Your task to perform on an android device: turn on bluetooth scan Image 0: 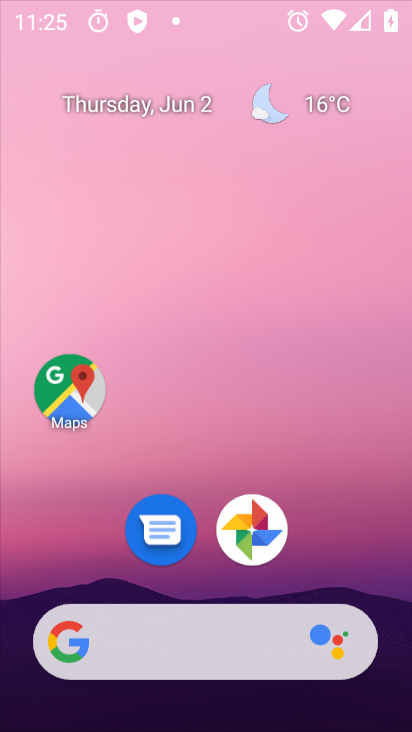
Step 0: drag from (215, 253) to (195, 66)
Your task to perform on an android device: turn on bluetooth scan Image 1: 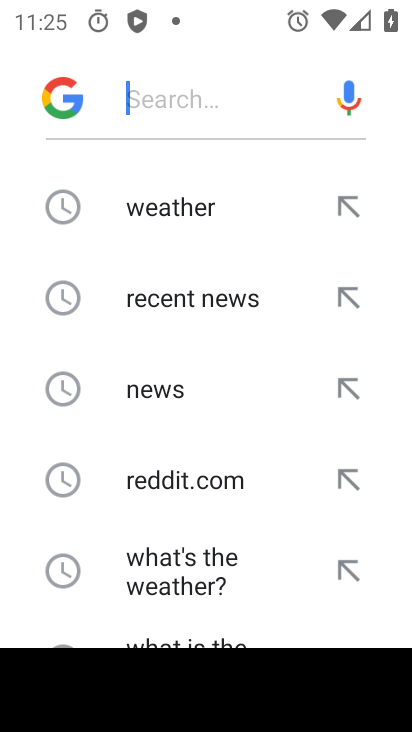
Step 1: press home button
Your task to perform on an android device: turn on bluetooth scan Image 2: 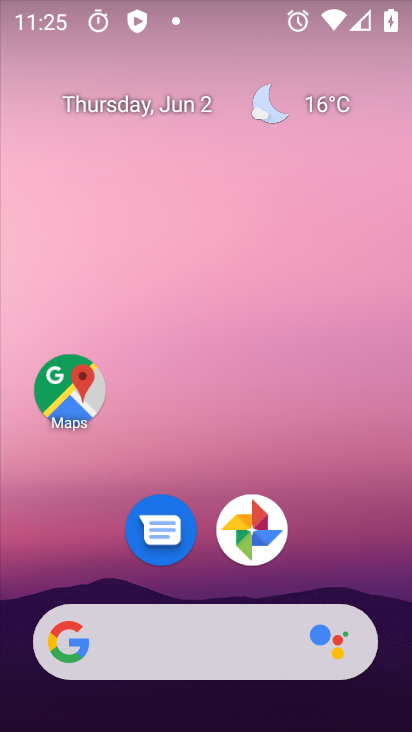
Step 2: drag from (256, 644) to (235, 37)
Your task to perform on an android device: turn on bluetooth scan Image 3: 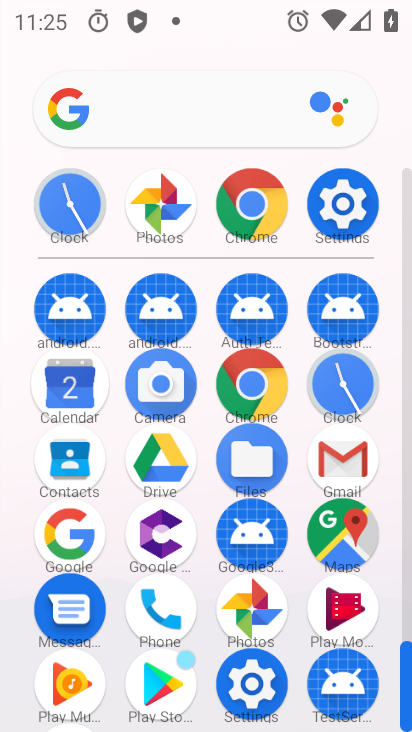
Step 3: click (337, 186)
Your task to perform on an android device: turn on bluetooth scan Image 4: 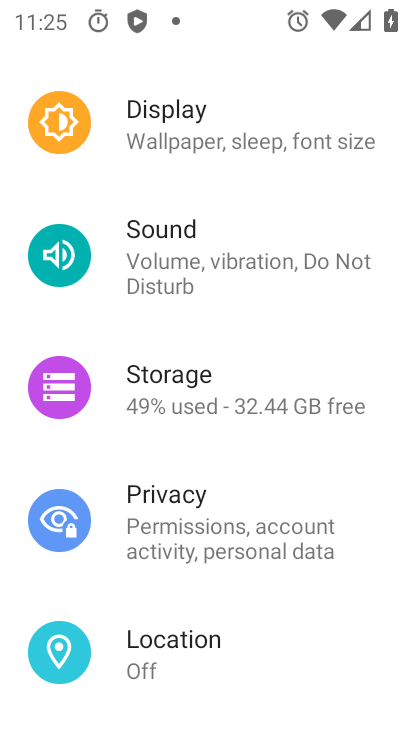
Step 4: drag from (207, 185) to (250, 464)
Your task to perform on an android device: turn on bluetooth scan Image 5: 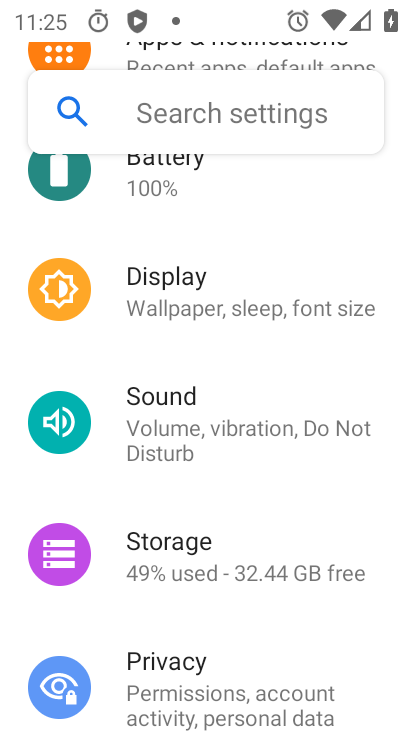
Step 5: drag from (188, 218) to (229, 557)
Your task to perform on an android device: turn on bluetooth scan Image 6: 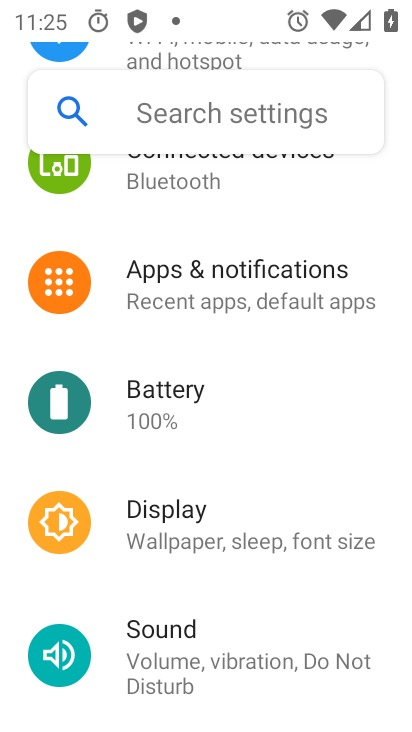
Step 6: drag from (160, 291) to (207, 467)
Your task to perform on an android device: turn on bluetooth scan Image 7: 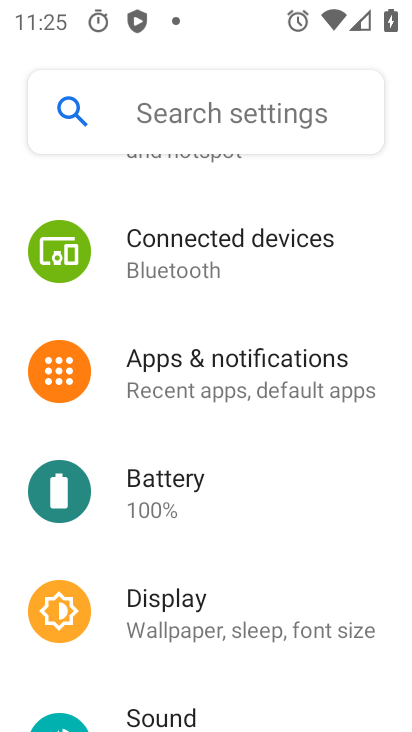
Step 7: drag from (205, 517) to (203, 189)
Your task to perform on an android device: turn on bluetooth scan Image 8: 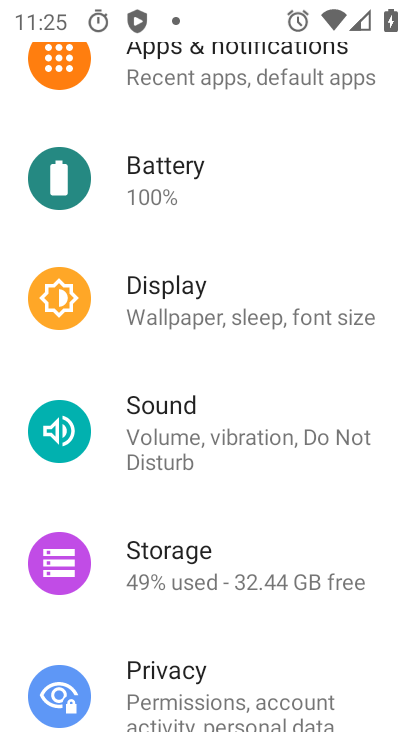
Step 8: drag from (193, 517) to (193, 174)
Your task to perform on an android device: turn on bluetooth scan Image 9: 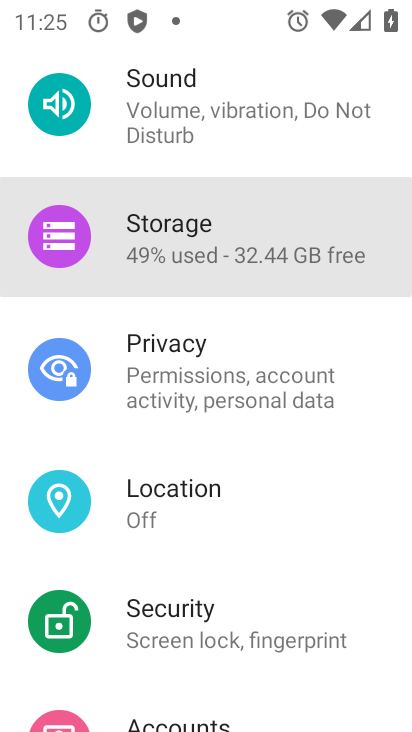
Step 9: drag from (194, 494) to (194, 220)
Your task to perform on an android device: turn on bluetooth scan Image 10: 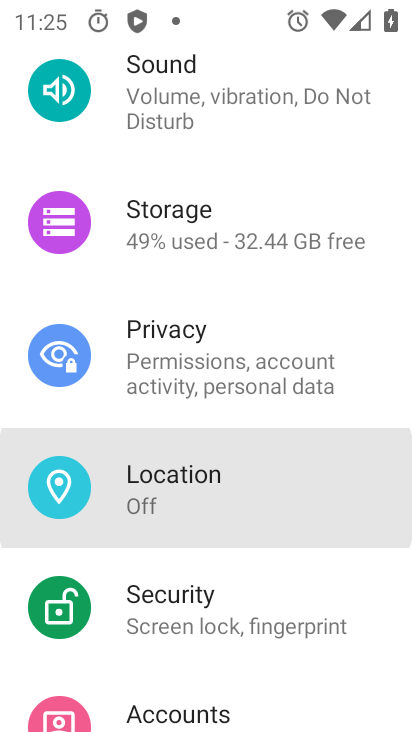
Step 10: drag from (188, 360) to (188, 213)
Your task to perform on an android device: turn on bluetooth scan Image 11: 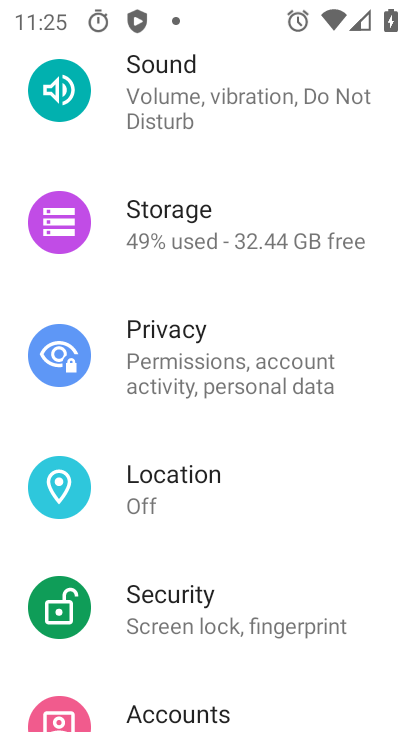
Step 11: drag from (188, 450) to (185, 199)
Your task to perform on an android device: turn on bluetooth scan Image 12: 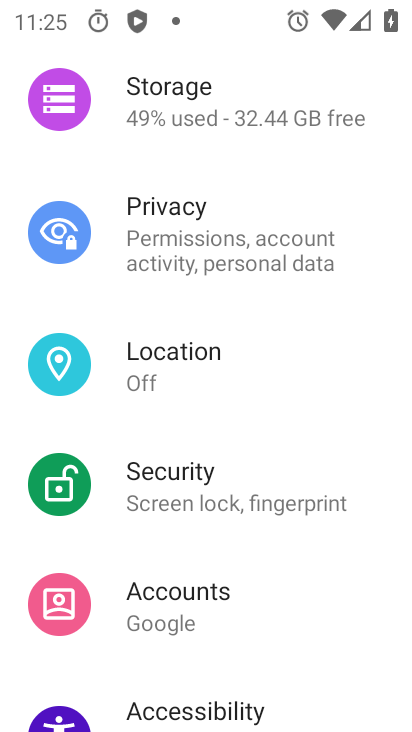
Step 12: click (157, 698)
Your task to perform on an android device: turn on bluetooth scan Image 13: 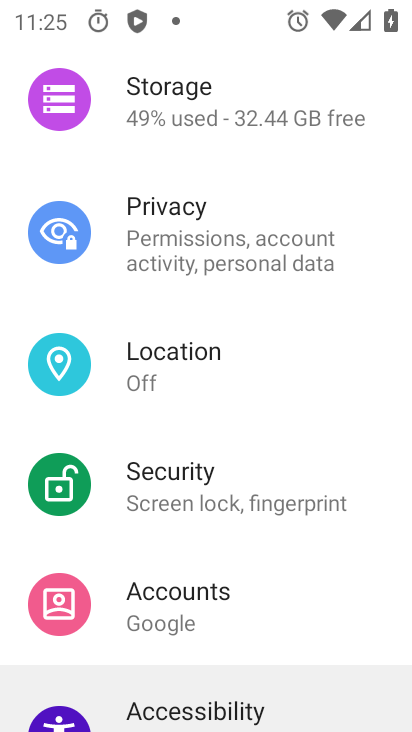
Step 13: click (157, 698)
Your task to perform on an android device: turn on bluetooth scan Image 14: 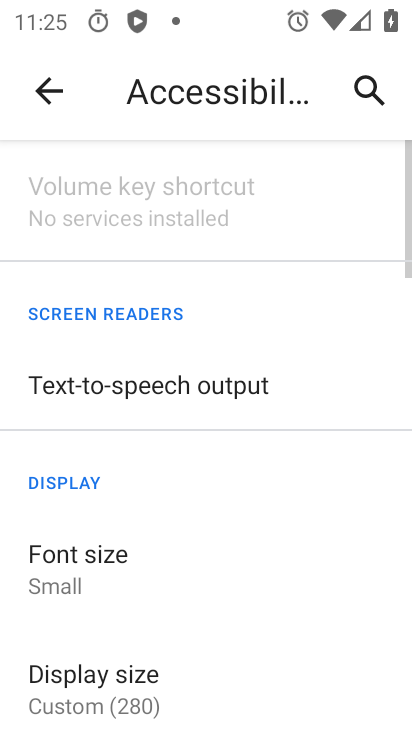
Step 14: click (44, 75)
Your task to perform on an android device: turn on bluetooth scan Image 15: 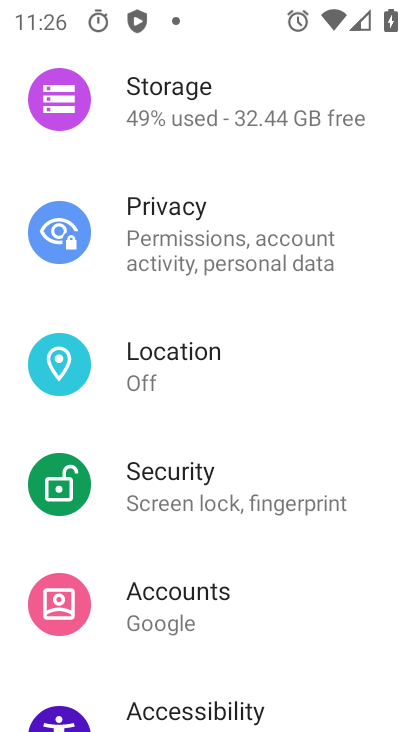
Step 15: click (150, 366)
Your task to perform on an android device: turn on bluetooth scan Image 16: 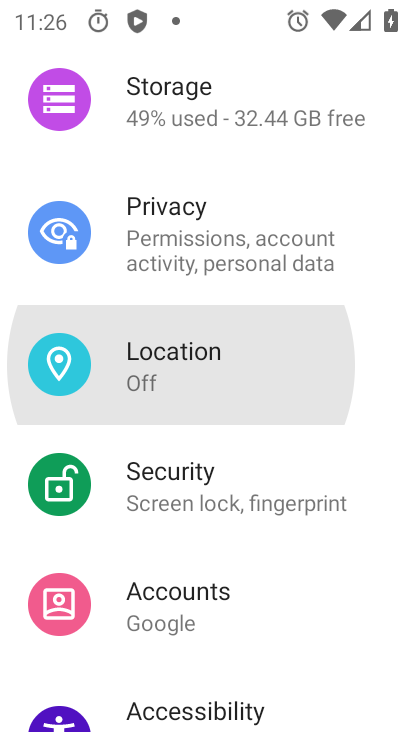
Step 16: click (148, 364)
Your task to perform on an android device: turn on bluetooth scan Image 17: 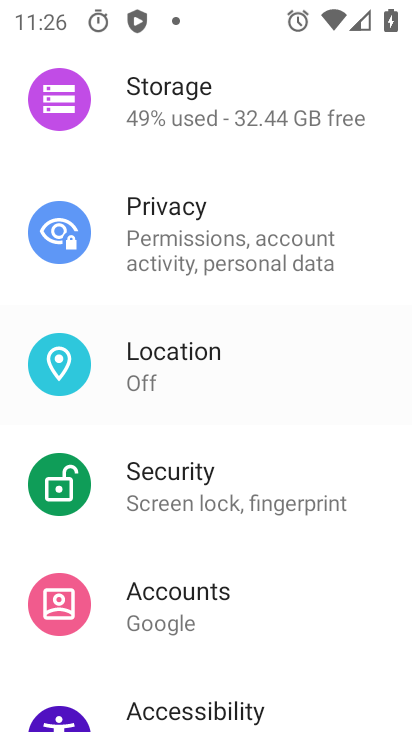
Step 17: click (148, 364)
Your task to perform on an android device: turn on bluetooth scan Image 18: 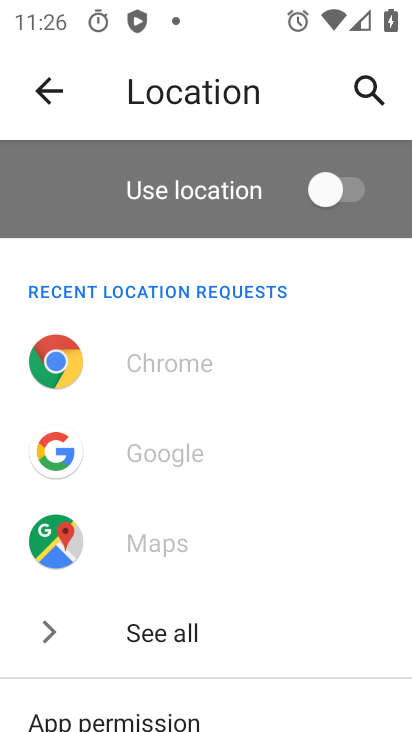
Step 18: click (166, 117)
Your task to perform on an android device: turn on bluetooth scan Image 19: 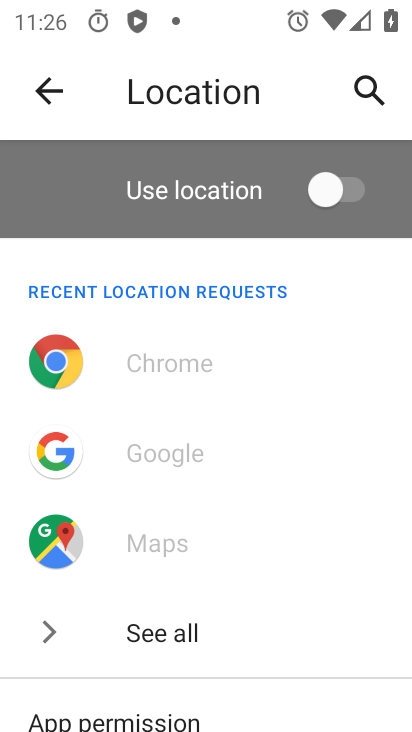
Step 19: click (250, 117)
Your task to perform on an android device: turn on bluetooth scan Image 20: 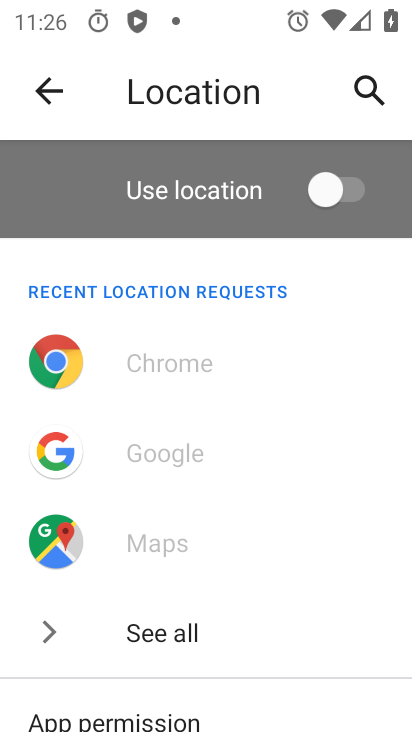
Step 20: drag from (245, 516) to (247, 60)
Your task to perform on an android device: turn on bluetooth scan Image 21: 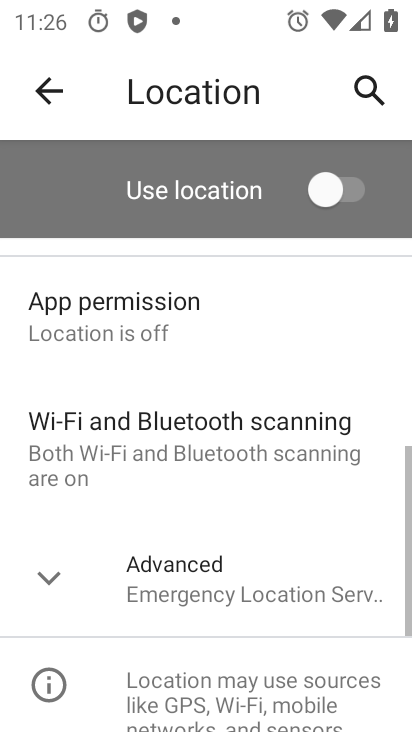
Step 21: drag from (199, 492) to (149, 157)
Your task to perform on an android device: turn on bluetooth scan Image 22: 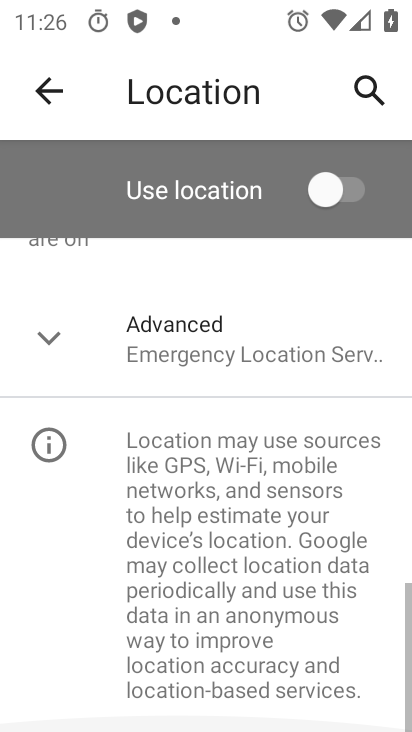
Step 22: drag from (207, 555) to (202, 192)
Your task to perform on an android device: turn on bluetooth scan Image 23: 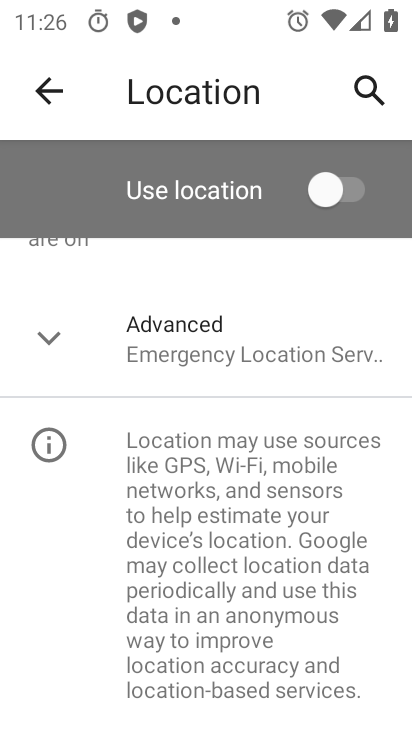
Step 23: drag from (252, 362) to (289, 617)
Your task to perform on an android device: turn on bluetooth scan Image 24: 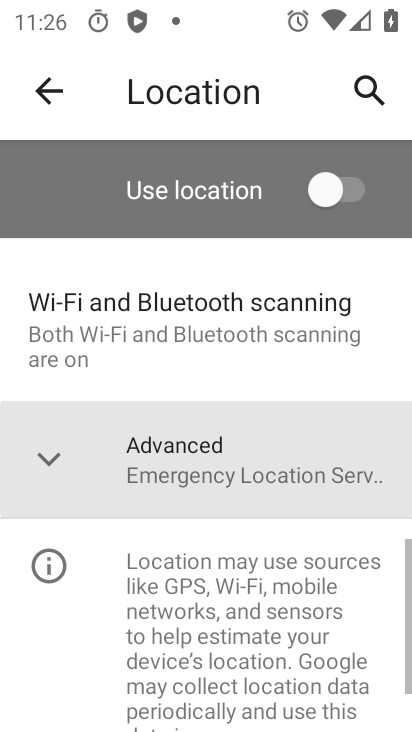
Step 24: drag from (264, 417) to (274, 568)
Your task to perform on an android device: turn on bluetooth scan Image 25: 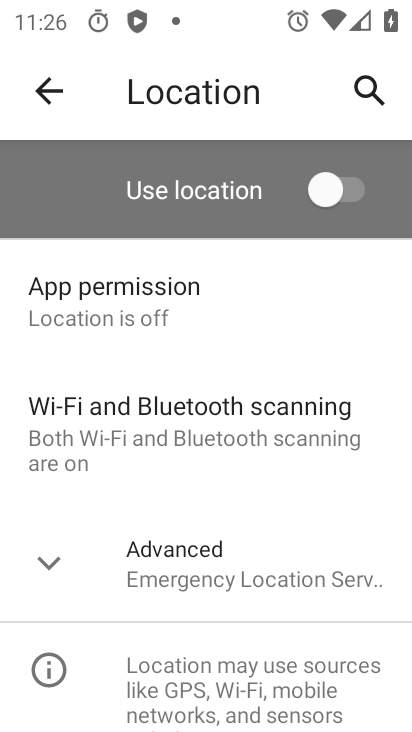
Step 25: click (211, 421)
Your task to perform on an android device: turn on bluetooth scan Image 26: 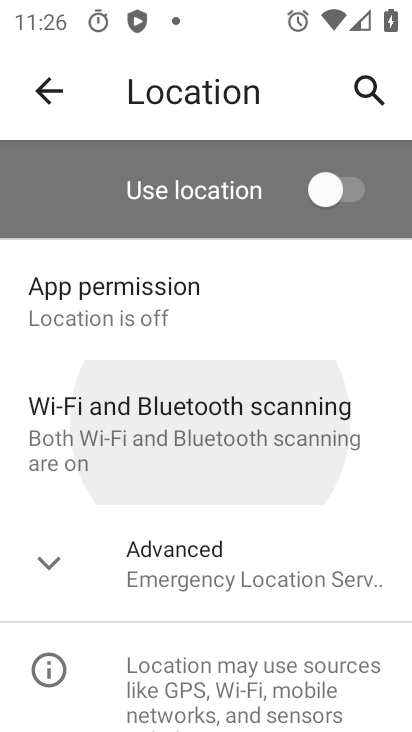
Step 26: click (211, 421)
Your task to perform on an android device: turn on bluetooth scan Image 27: 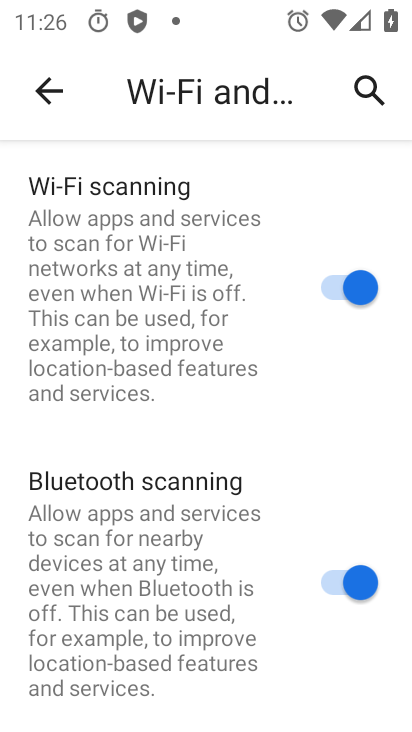
Step 27: task complete